Your task to perform on an android device: check android version Image 0: 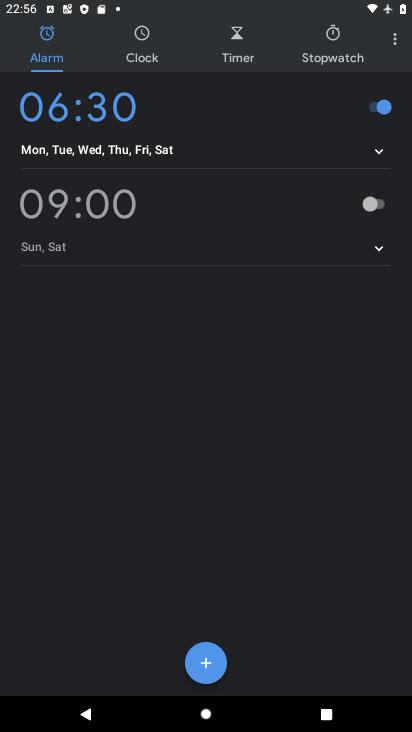
Step 0: press home button
Your task to perform on an android device: check android version Image 1: 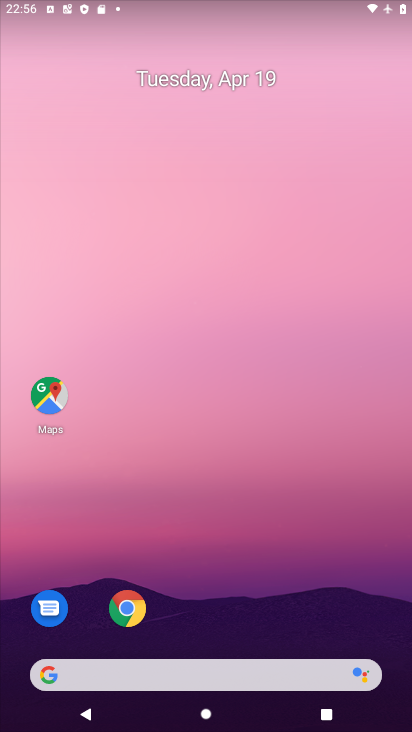
Step 1: drag from (356, 615) to (273, 100)
Your task to perform on an android device: check android version Image 2: 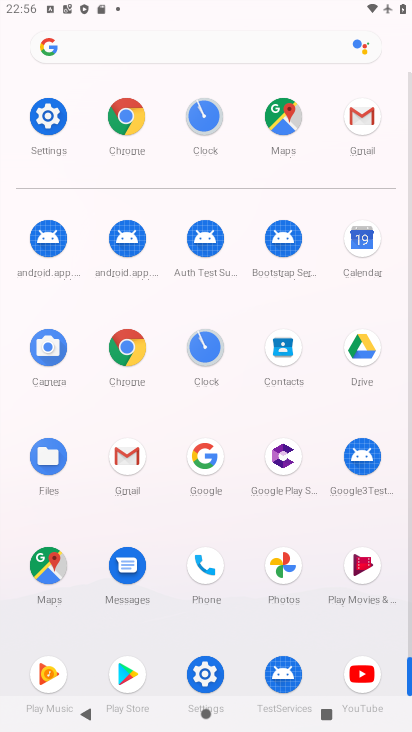
Step 2: click (204, 674)
Your task to perform on an android device: check android version Image 3: 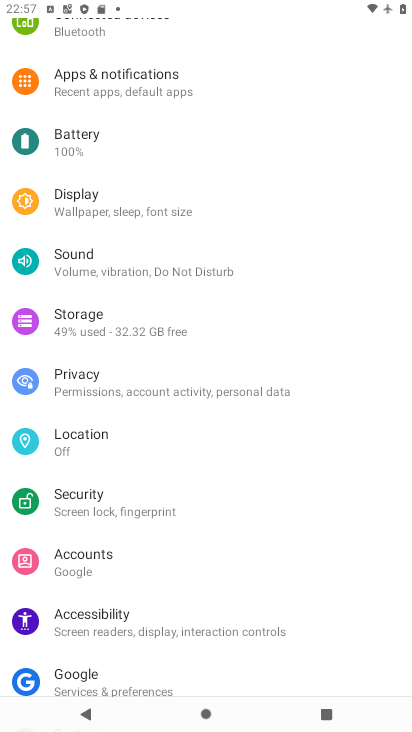
Step 3: drag from (209, 642) to (255, 191)
Your task to perform on an android device: check android version Image 4: 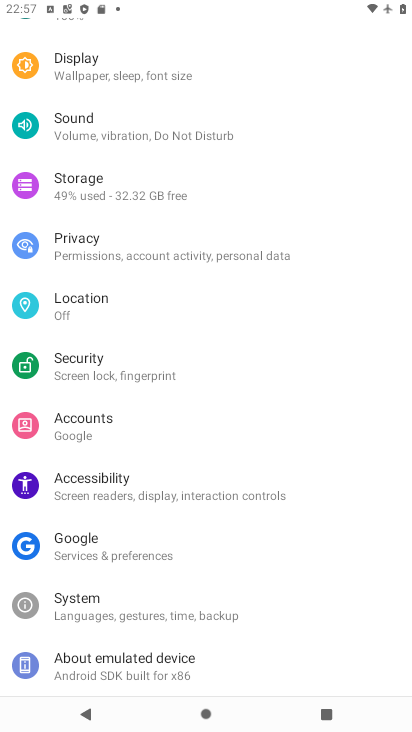
Step 4: click (116, 662)
Your task to perform on an android device: check android version Image 5: 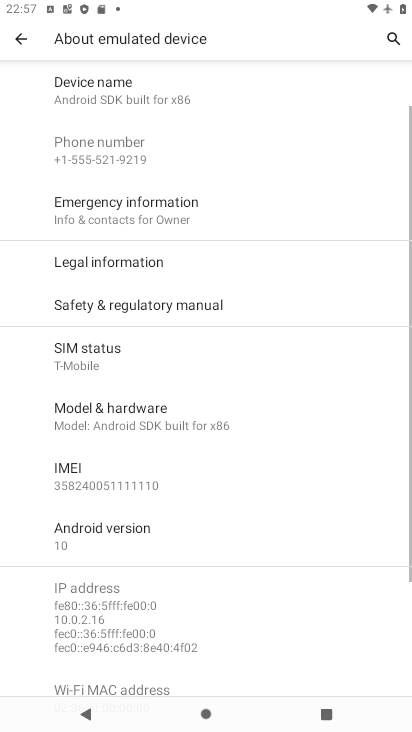
Step 5: drag from (261, 486) to (266, 256)
Your task to perform on an android device: check android version Image 6: 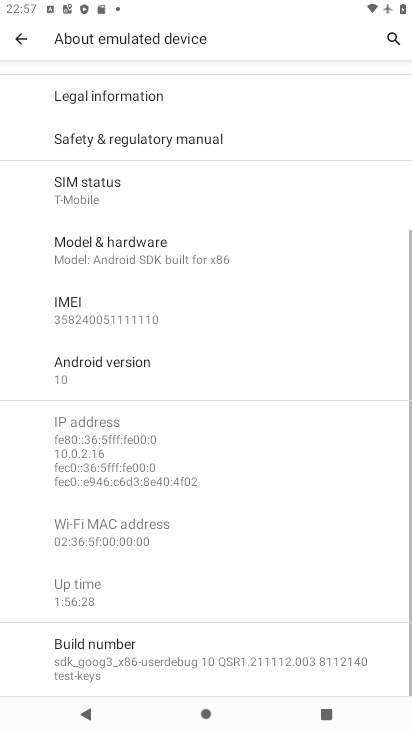
Step 6: drag from (251, 487) to (240, 273)
Your task to perform on an android device: check android version Image 7: 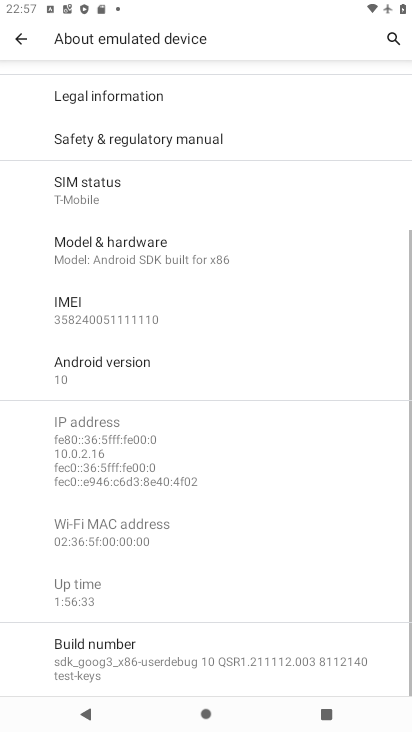
Step 7: click (137, 366)
Your task to perform on an android device: check android version Image 8: 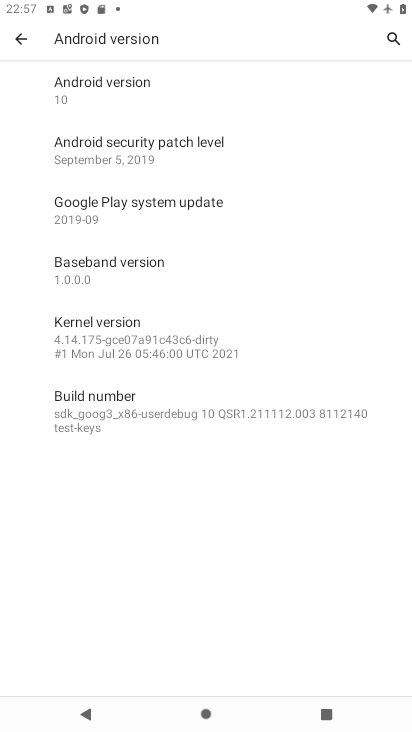
Step 8: task complete